Your task to perform on an android device: Open privacy settings Image 0: 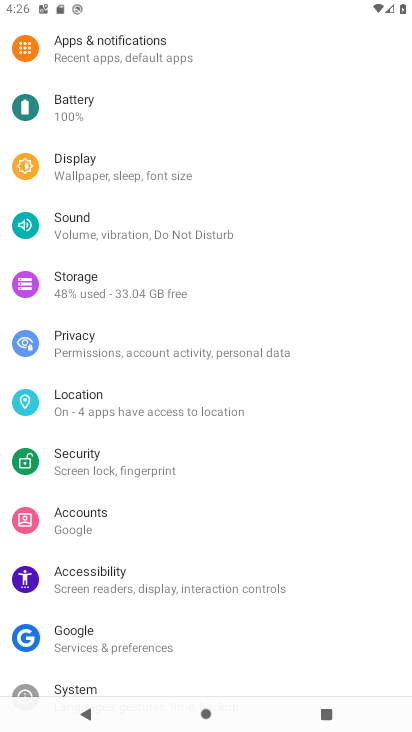
Step 0: click (76, 355)
Your task to perform on an android device: Open privacy settings Image 1: 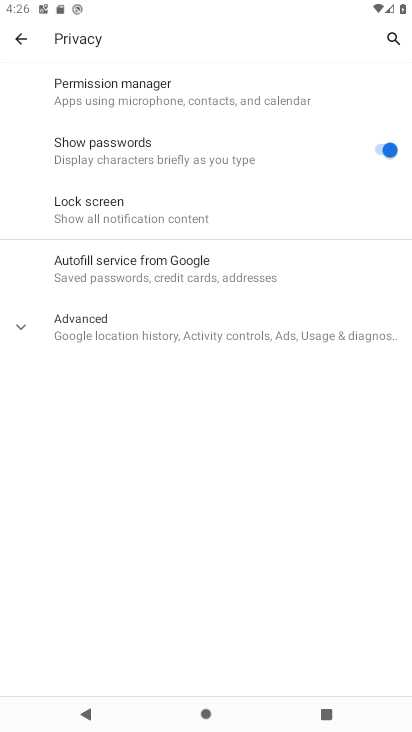
Step 1: click (91, 322)
Your task to perform on an android device: Open privacy settings Image 2: 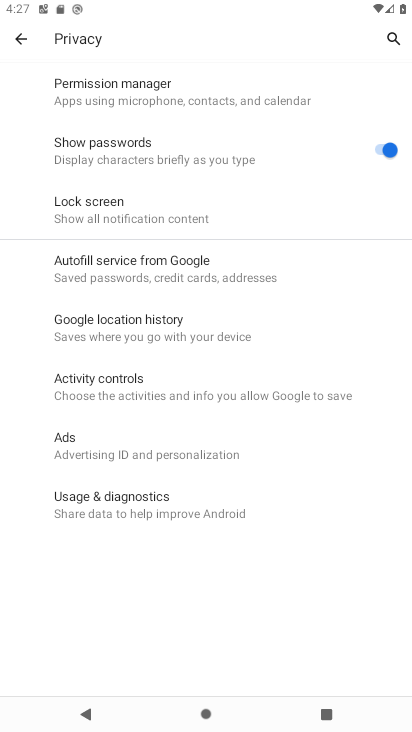
Step 2: task complete